Your task to perform on an android device: create a new album in the google photos Image 0: 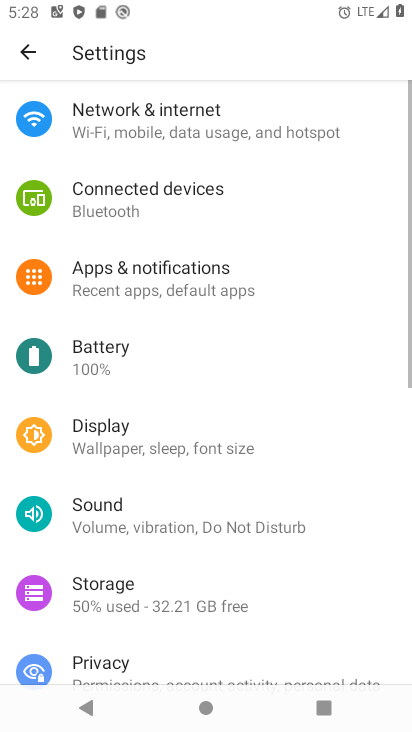
Step 0: press home button
Your task to perform on an android device: create a new album in the google photos Image 1: 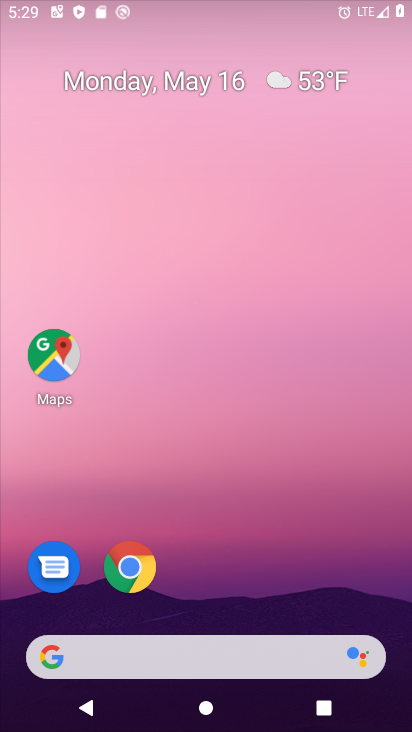
Step 1: drag from (256, 708) to (265, 8)
Your task to perform on an android device: create a new album in the google photos Image 2: 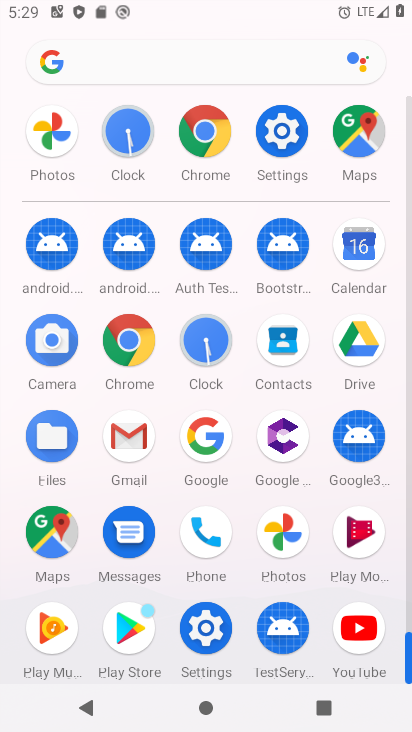
Step 2: click (278, 549)
Your task to perform on an android device: create a new album in the google photos Image 3: 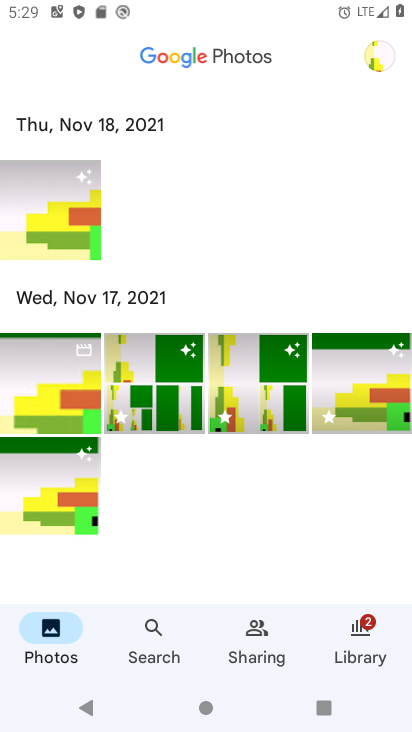
Step 3: drag from (281, 506) to (290, 188)
Your task to perform on an android device: create a new album in the google photos Image 4: 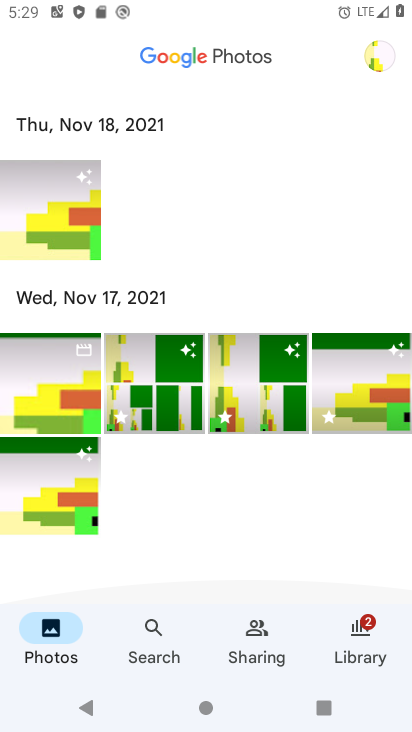
Step 4: drag from (298, 213) to (310, 573)
Your task to perform on an android device: create a new album in the google photos Image 5: 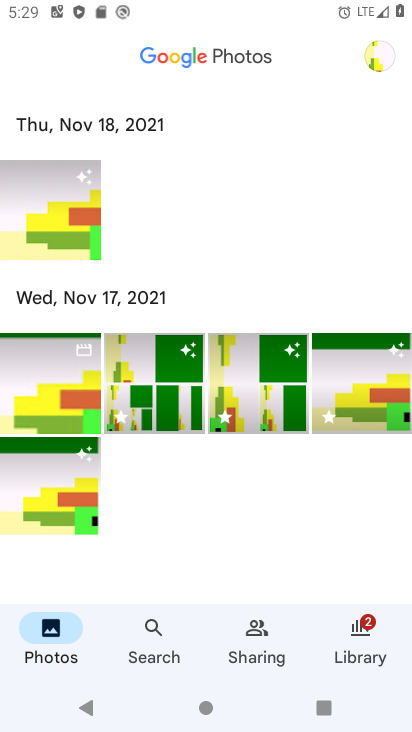
Step 5: click (249, 648)
Your task to perform on an android device: create a new album in the google photos Image 6: 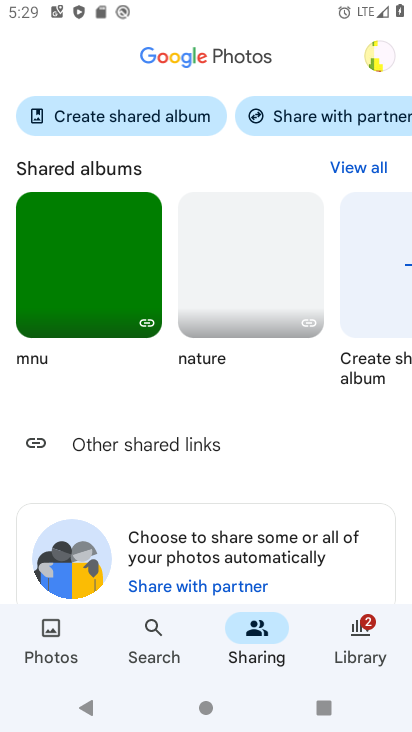
Step 6: click (360, 634)
Your task to perform on an android device: create a new album in the google photos Image 7: 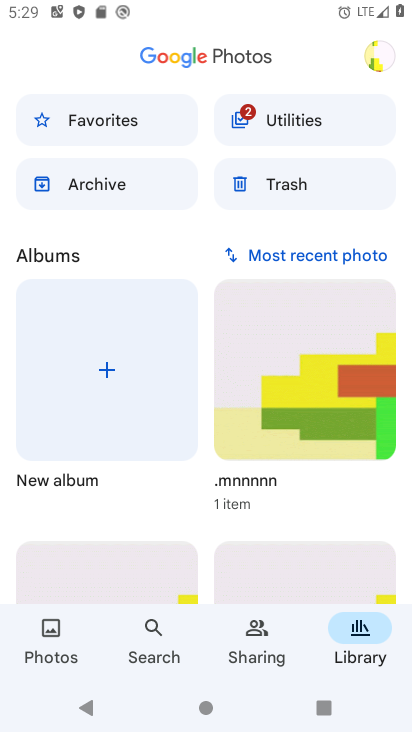
Step 7: click (98, 370)
Your task to perform on an android device: create a new album in the google photos Image 8: 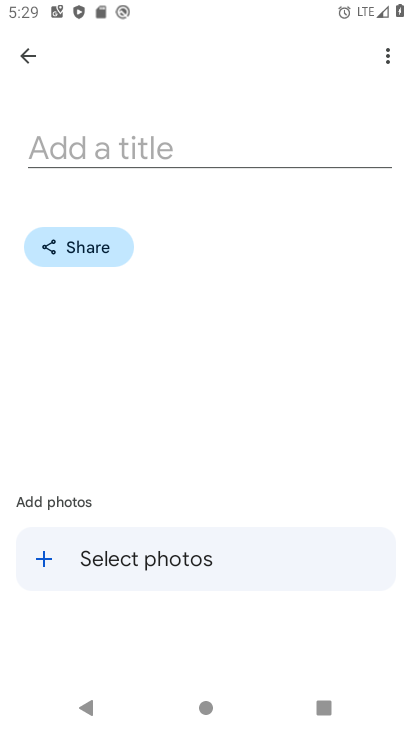
Step 8: click (240, 141)
Your task to perform on an android device: create a new album in the google photos Image 9: 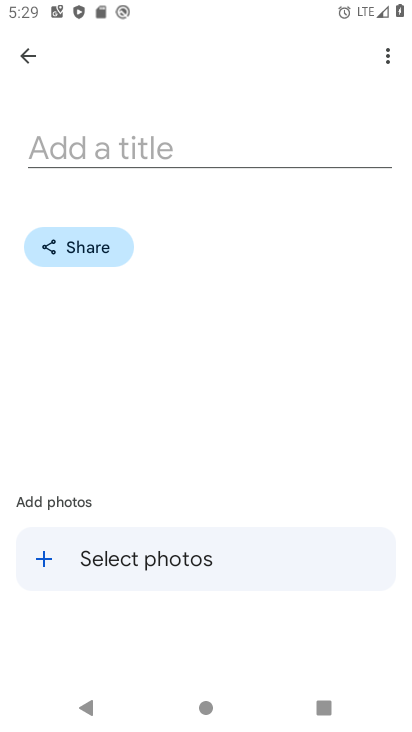
Step 9: click (231, 159)
Your task to perform on an android device: create a new album in the google photos Image 10: 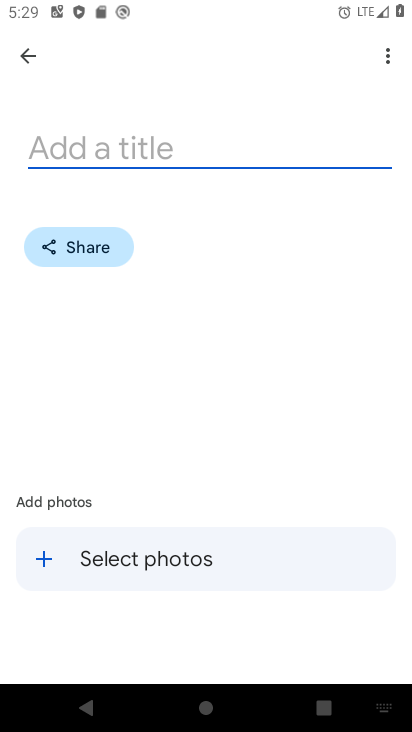
Step 10: type "gjgkjfx"
Your task to perform on an android device: create a new album in the google photos Image 11: 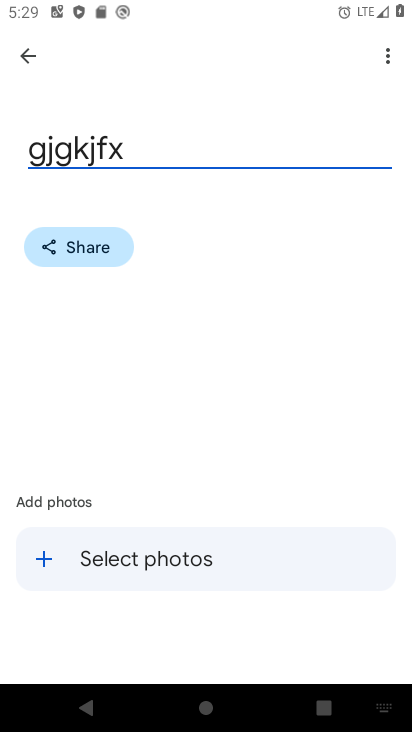
Step 11: click (39, 561)
Your task to perform on an android device: create a new album in the google photos Image 12: 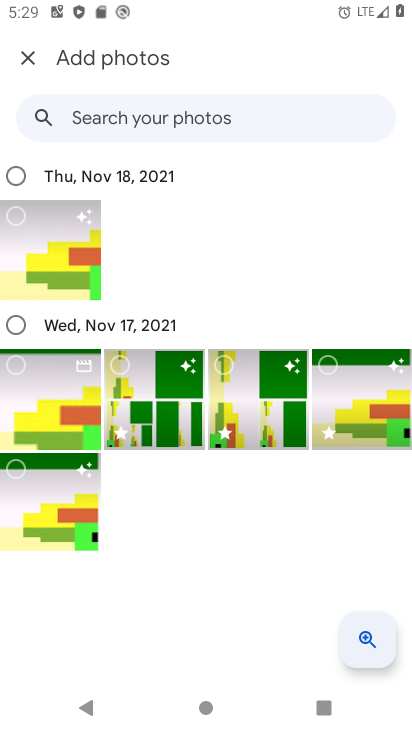
Step 12: click (43, 281)
Your task to perform on an android device: create a new album in the google photos Image 13: 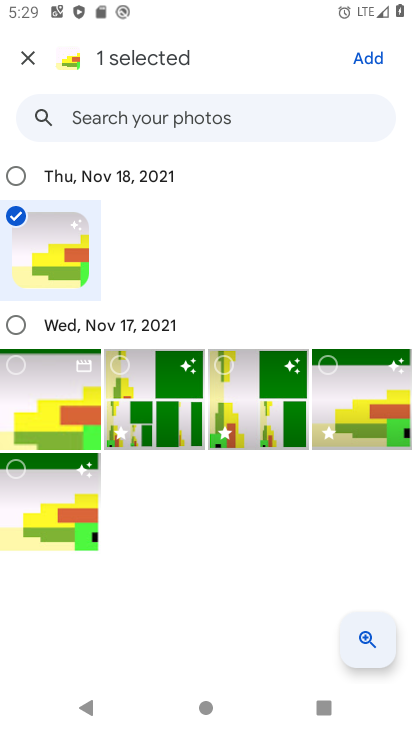
Step 13: click (368, 65)
Your task to perform on an android device: create a new album in the google photos Image 14: 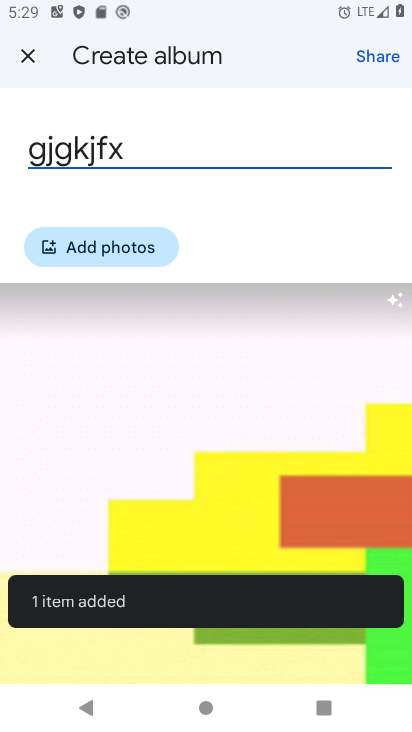
Step 14: task complete